Your task to perform on an android device: open chrome and create a bookmark for the current page Image 0: 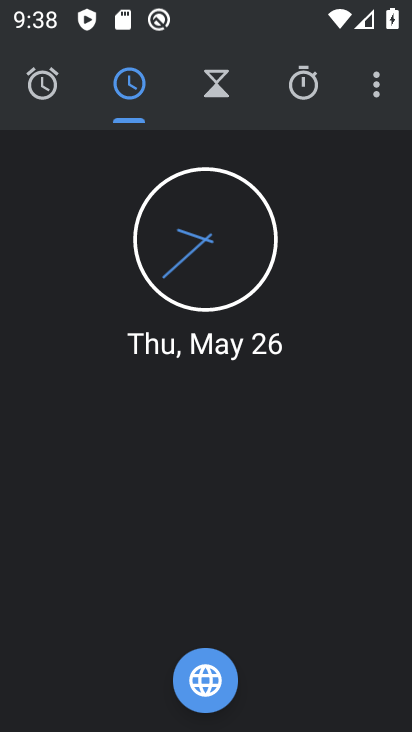
Step 0: press home button
Your task to perform on an android device: open chrome and create a bookmark for the current page Image 1: 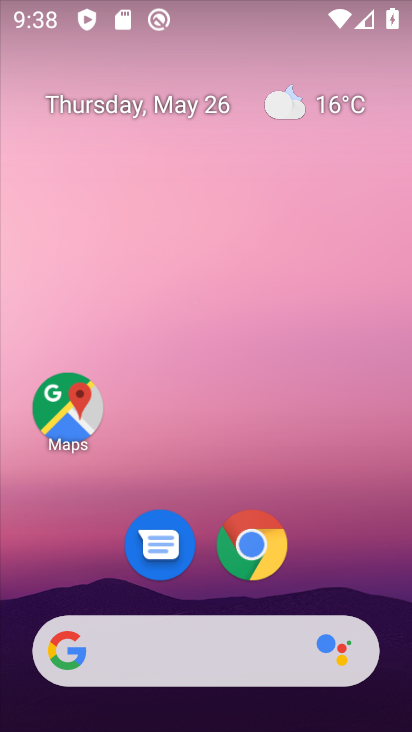
Step 1: click (255, 544)
Your task to perform on an android device: open chrome and create a bookmark for the current page Image 2: 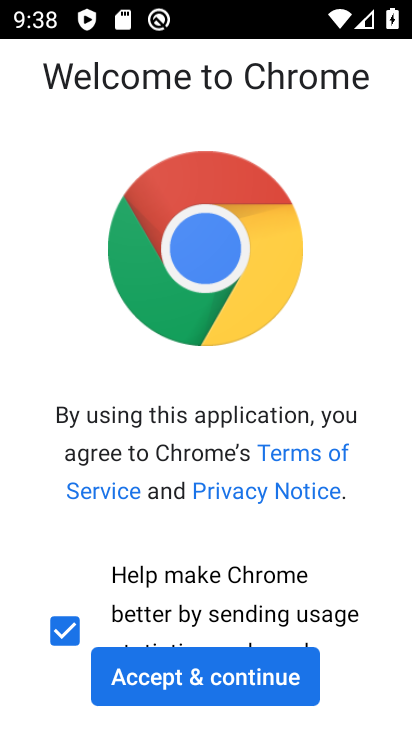
Step 2: click (194, 670)
Your task to perform on an android device: open chrome and create a bookmark for the current page Image 3: 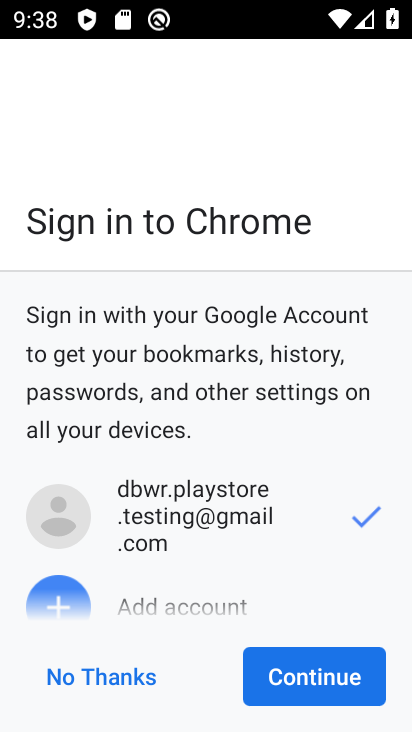
Step 3: click (293, 667)
Your task to perform on an android device: open chrome and create a bookmark for the current page Image 4: 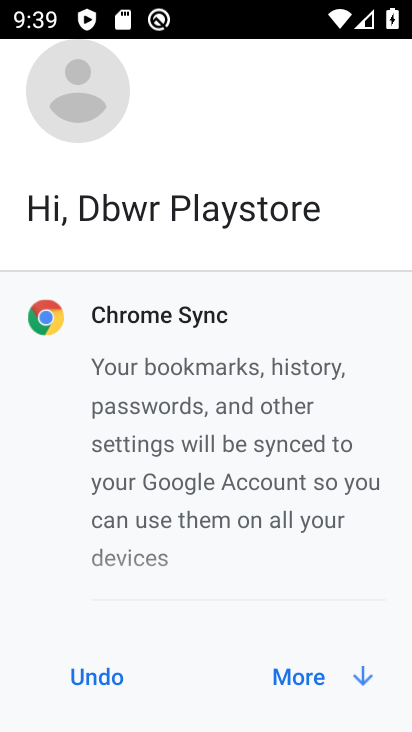
Step 4: click (311, 676)
Your task to perform on an android device: open chrome and create a bookmark for the current page Image 5: 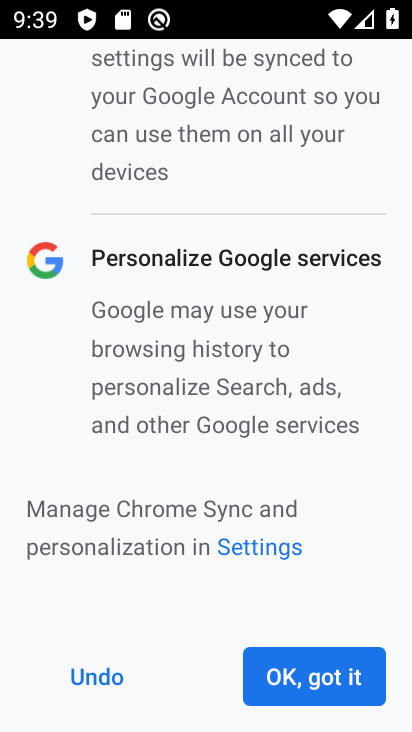
Step 5: click (311, 676)
Your task to perform on an android device: open chrome and create a bookmark for the current page Image 6: 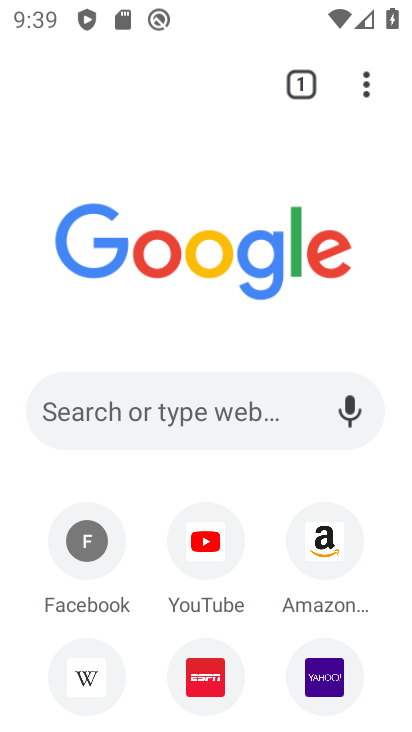
Step 6: click (358, 90)
Your task to perform on an android device: open chrome and create a bookmark for the current page Image 7: 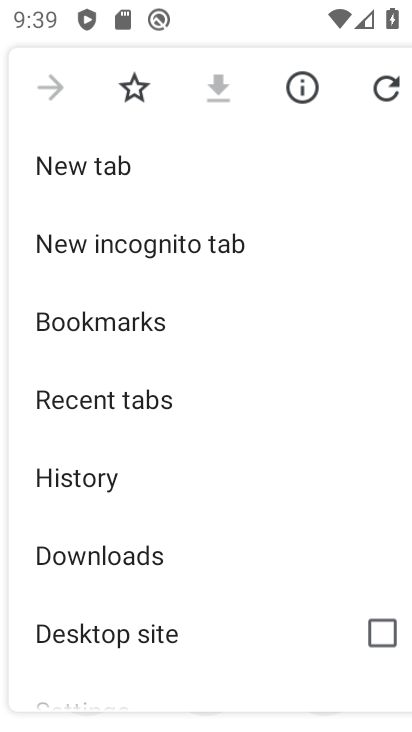
Step 7: click (138, 93)
Your task to perform on an android device: open chrome and create a bookmark for the current page Image 8: 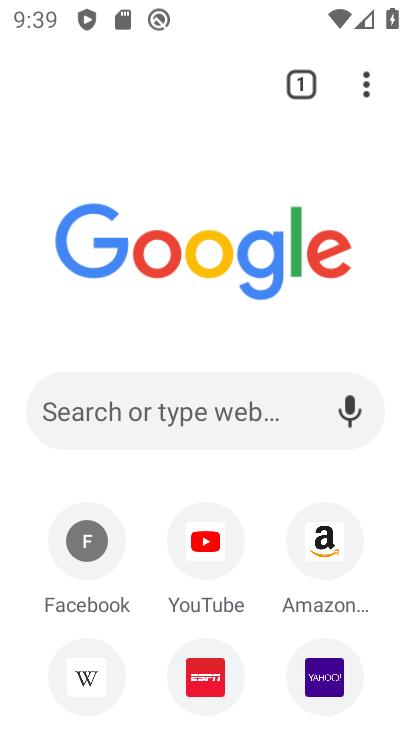
Step 8: task complete